Your task to perform on an android device: toggle sleep mode Image 0: 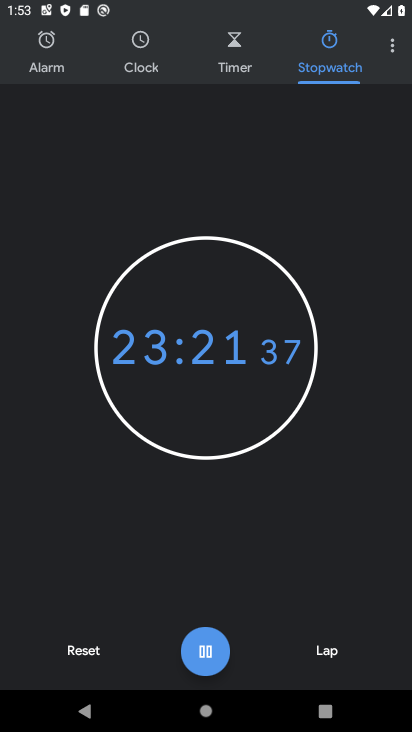
Step 0: press home button
Your task to perform on an android device: toggle sleep mode Image 1: 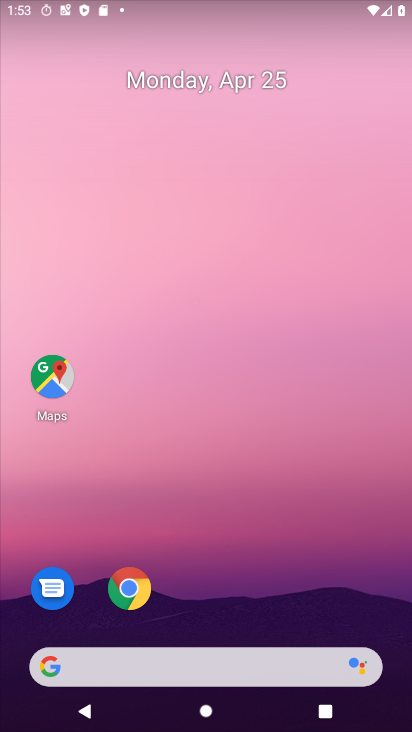
Step 1: drag from (255, 627) to (209, 265)
Your task to perform on an android device: toggle sleep mode Image 2: 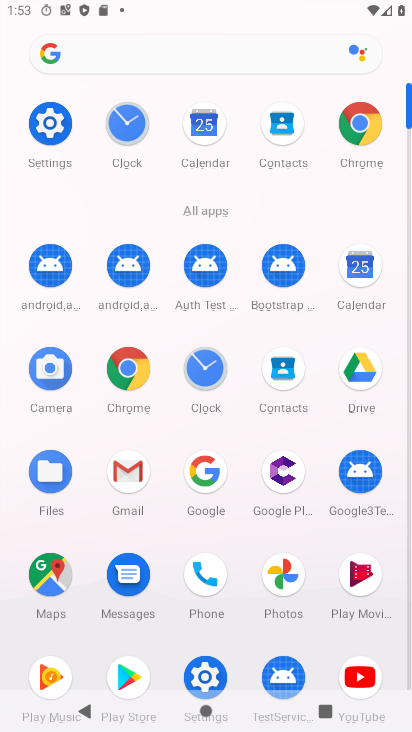
Step 2: click (39, 142)
Your task to perform on an android device: toggle sleep mode Image 3: 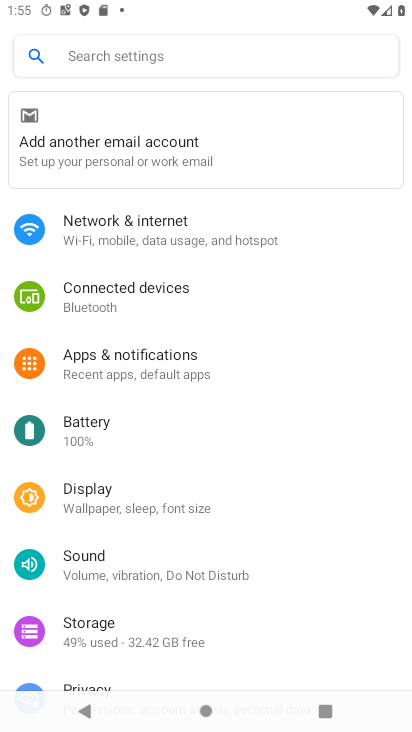
Step 3: task complete